Your task to perform on an android device: clear history in the chrome app Image 0: 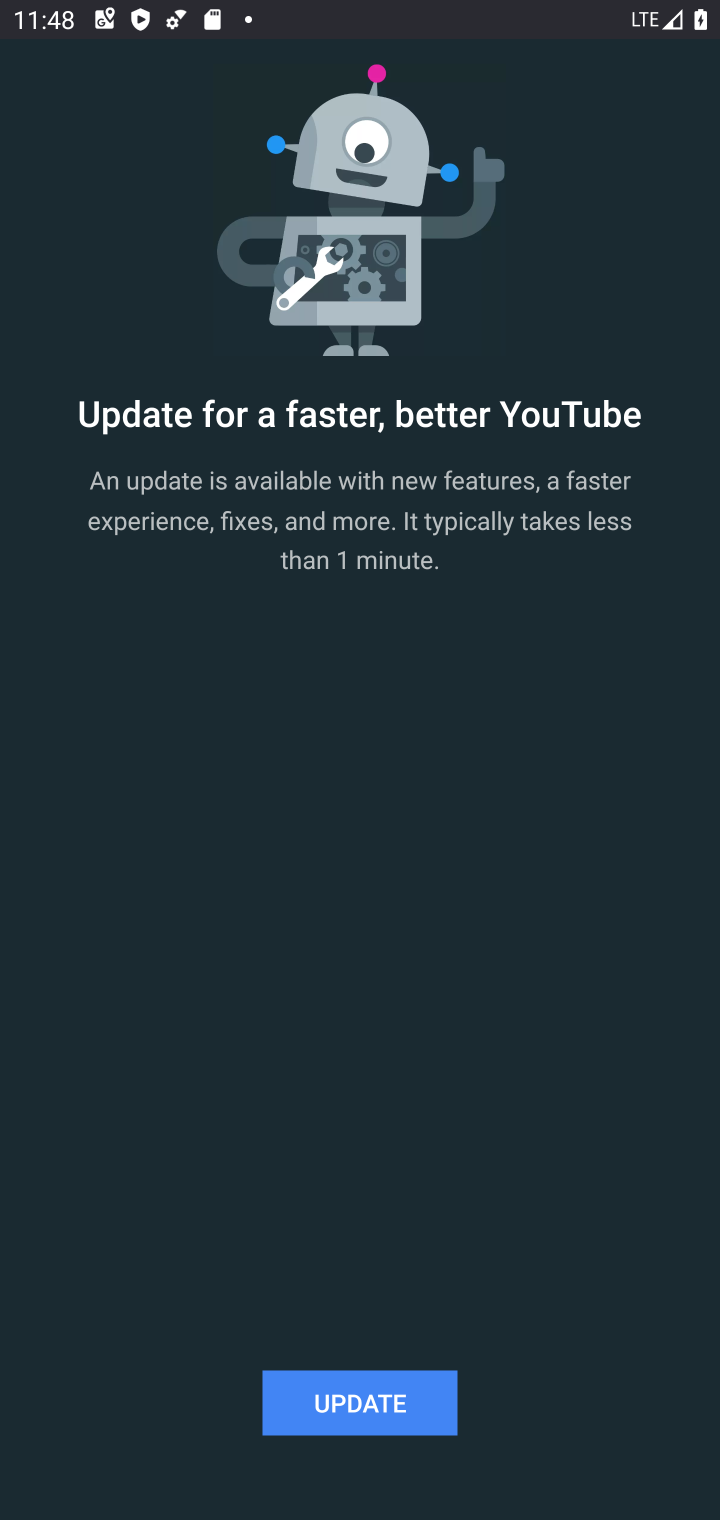
Step 0: press back button
Your task to perform on an android device: clear history in the chrome app Image 1: 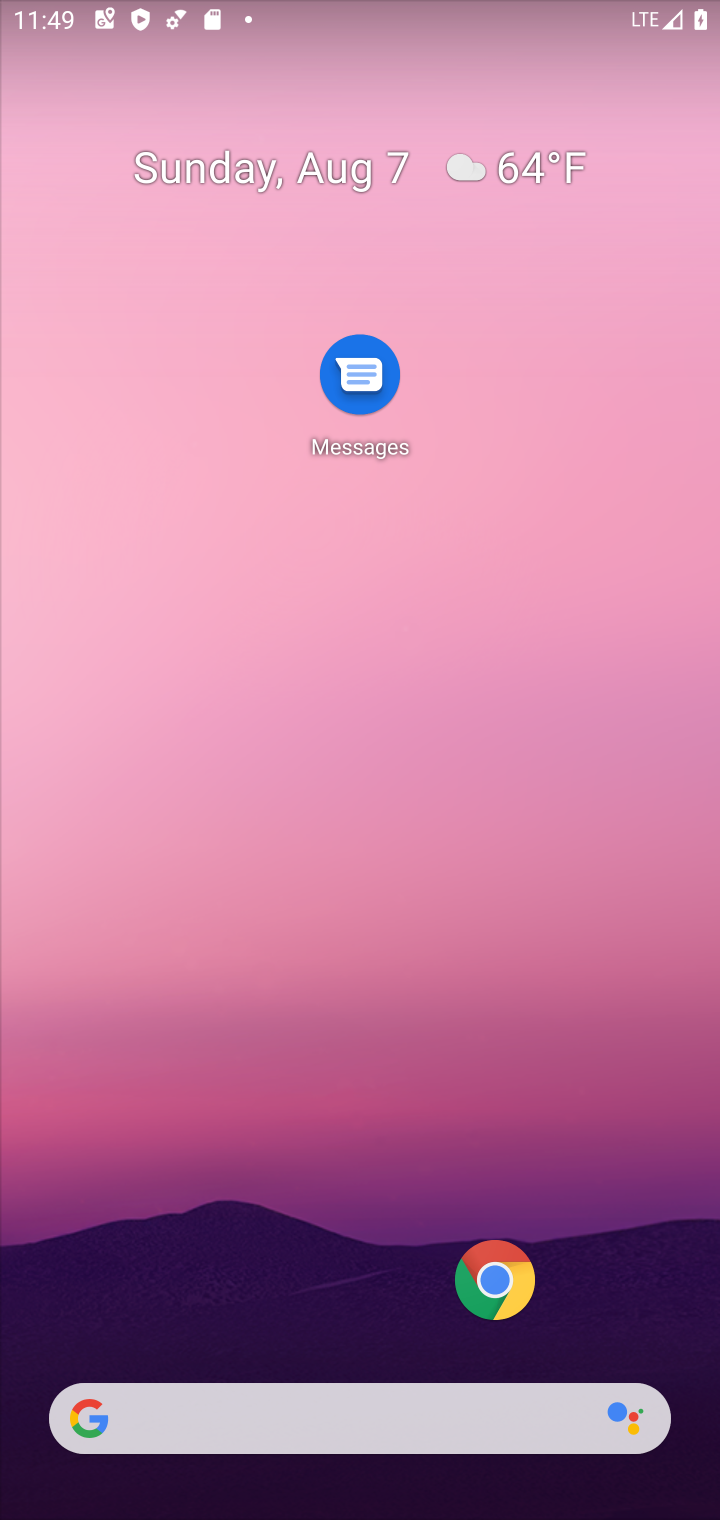
Step 1: click (520, 1277)
Your task to perform on an android device: clear history in the chrome app Image 2: 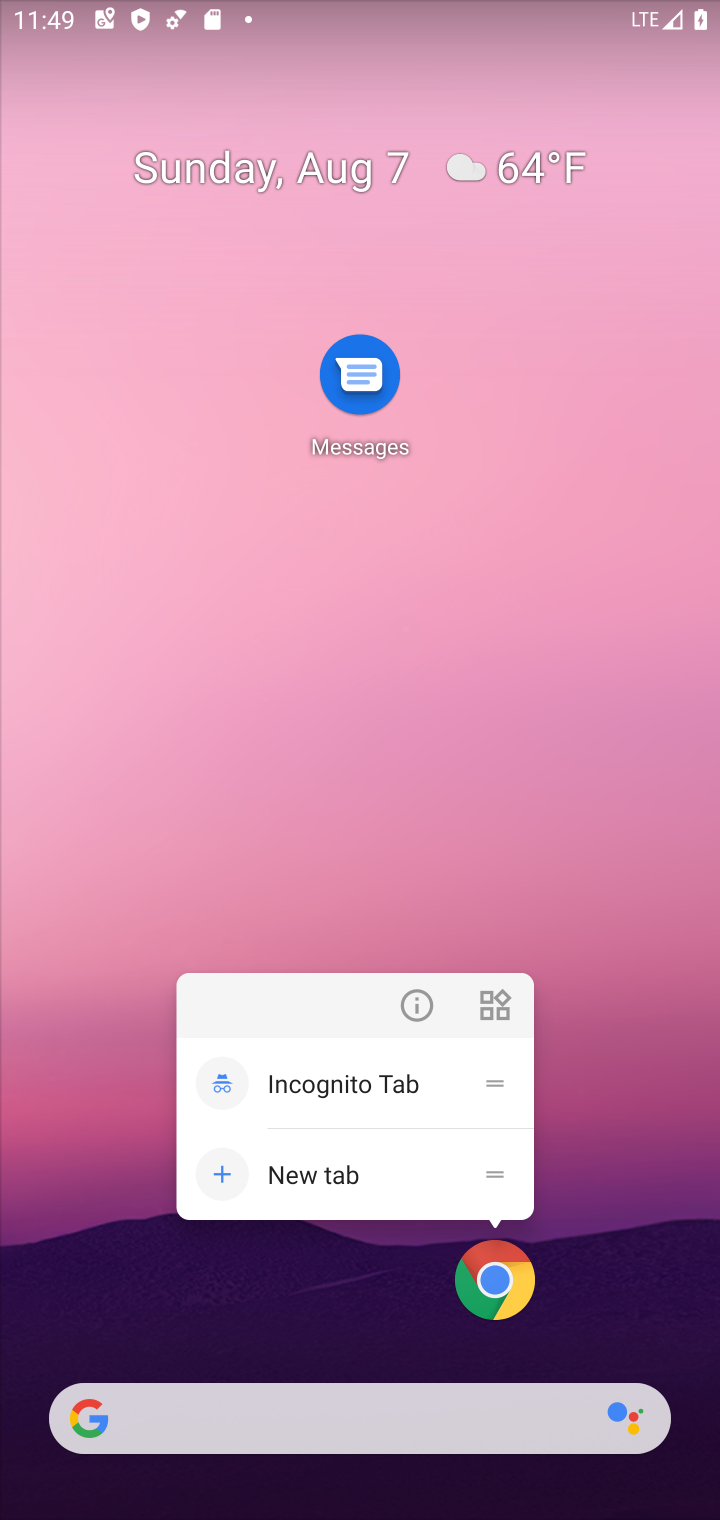
Step 2: click (489, 1275)
Your task to perform on an android device: clear history in the chrome app Image 3: 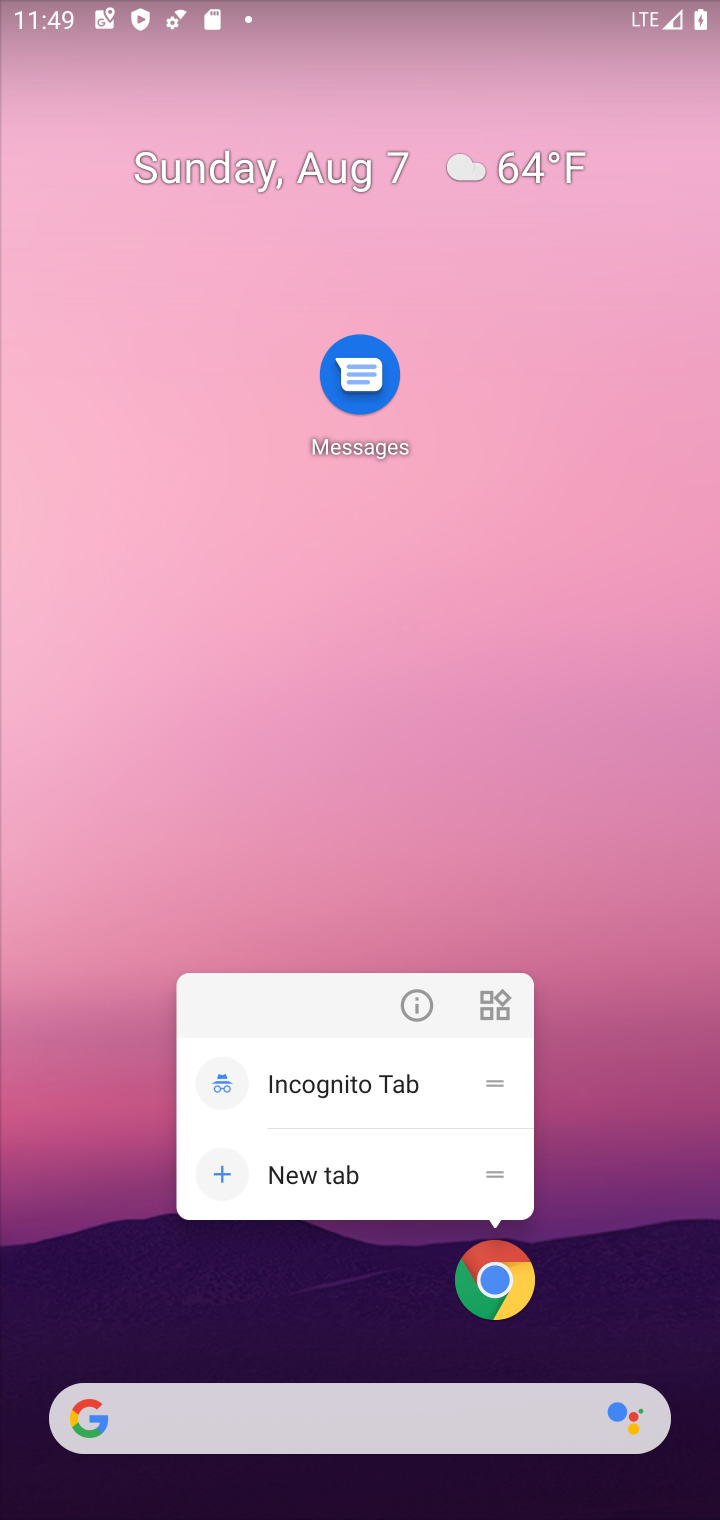
Step 3: click (489, 1275)
Your task to perform on an android device: clear history in the chrome app Image 4: 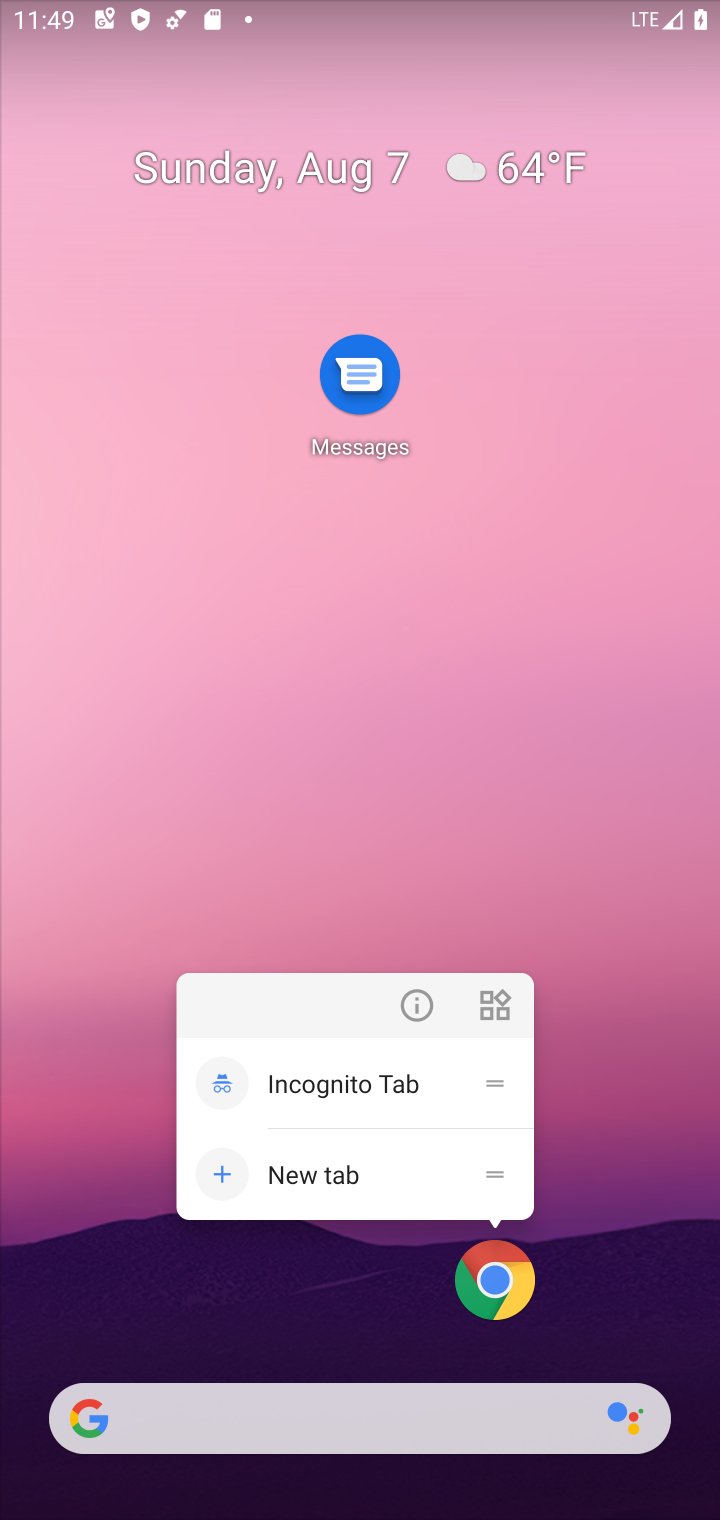
Step 4: click (482, 1286)
Your task to perform on an android device: clear history in the chrome app Image 5: 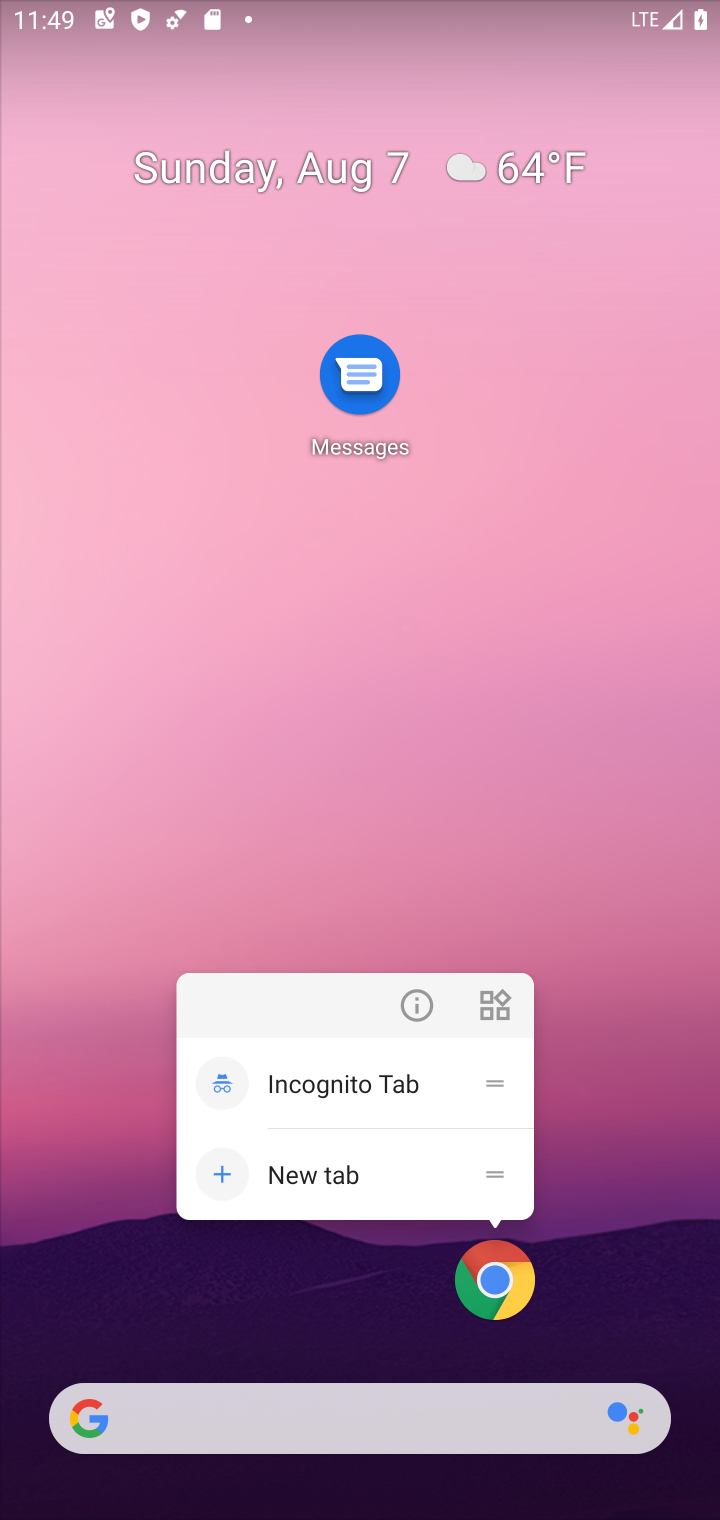
Step 5: click (507, 1289)
Your task to perform on an android device: clear history in the chrome app Image 6: 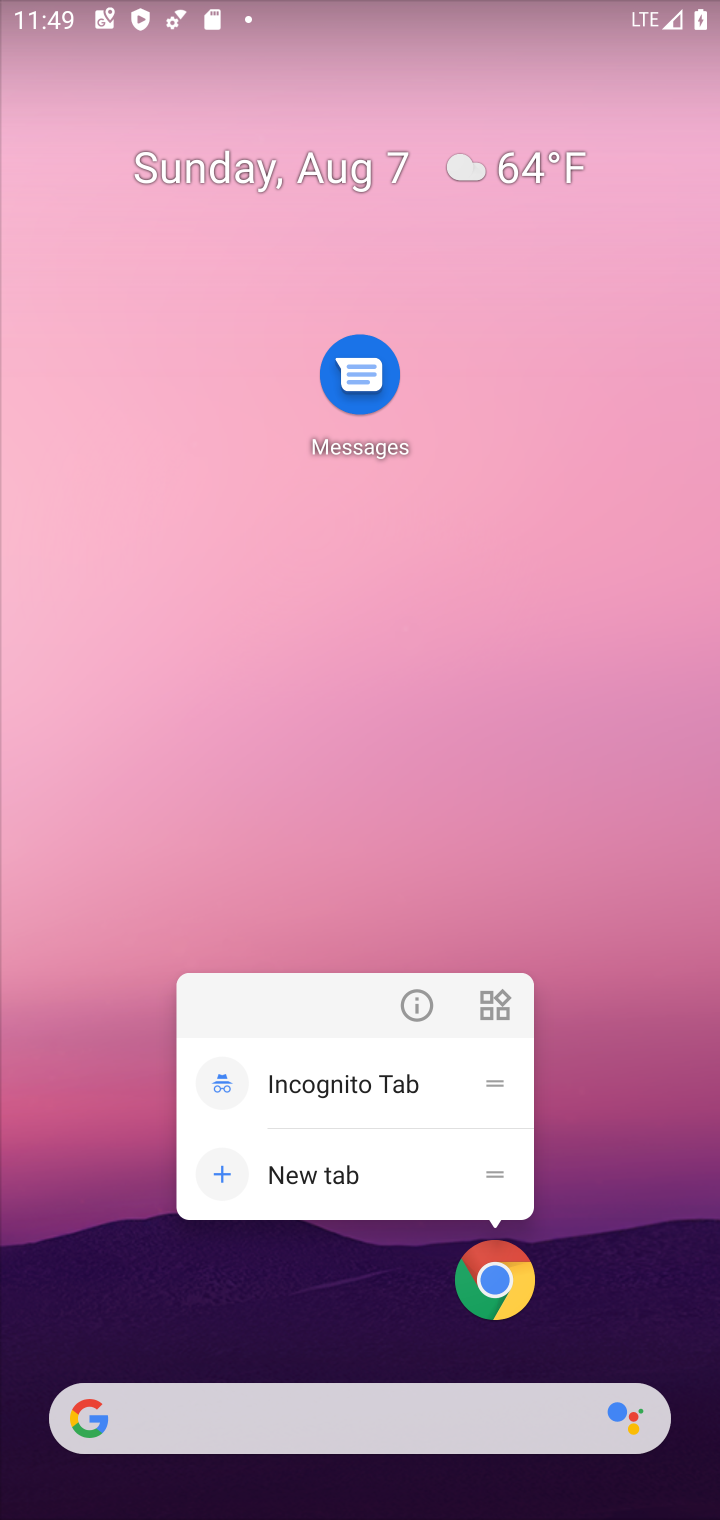
Step 6: click (507, 1289)
Your task to perform on an android device: clear history in the chrome app Image 7: 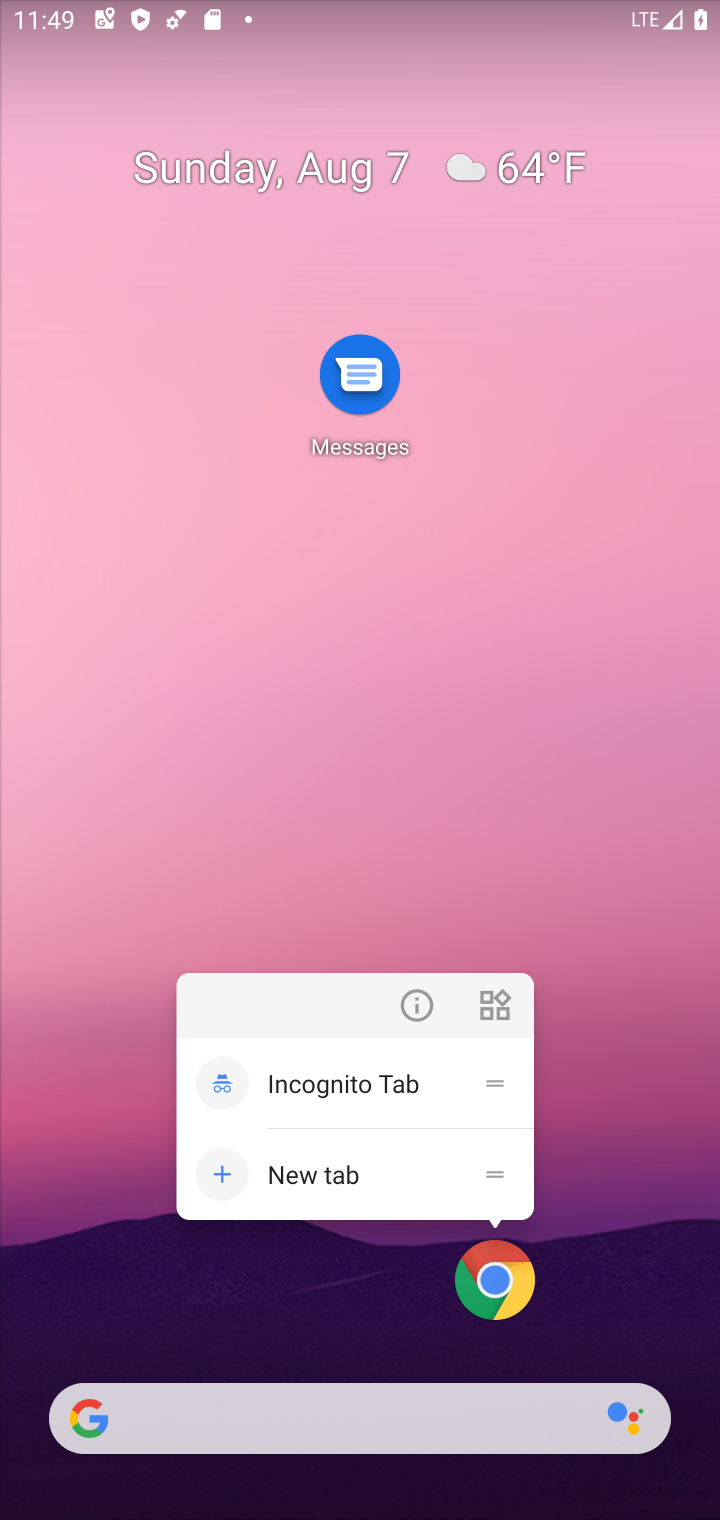
Step 7: click (509, 1287)
Your task to perform on an android device: clear history in the chrome app Image 8: 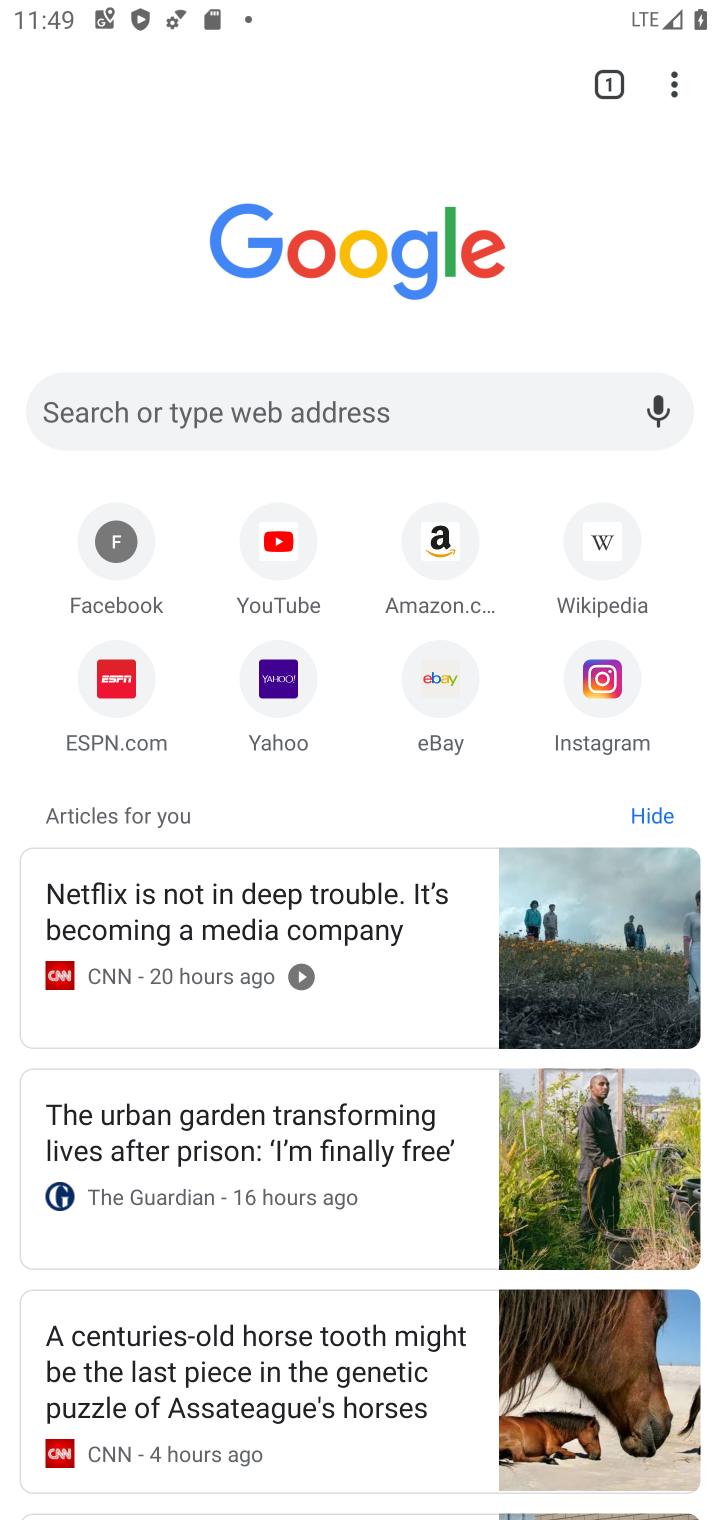
Step 8: drag from (676, 79) to (394, 480)
Your task to perform on an android device: clear history in the chrome app Image 9: 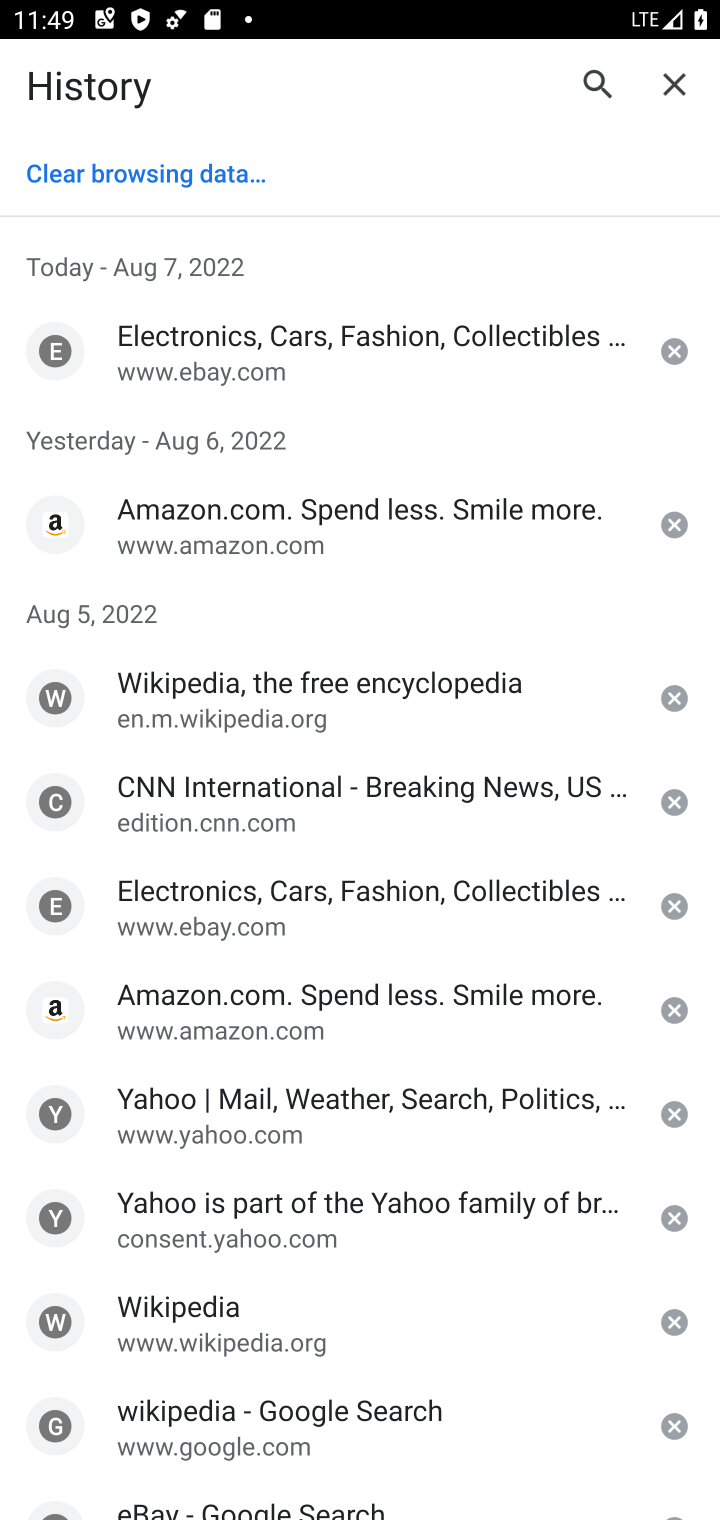
Step 9: click (81, 203)
Your task to perform on an android device: clear history in the chrome app Image 10: 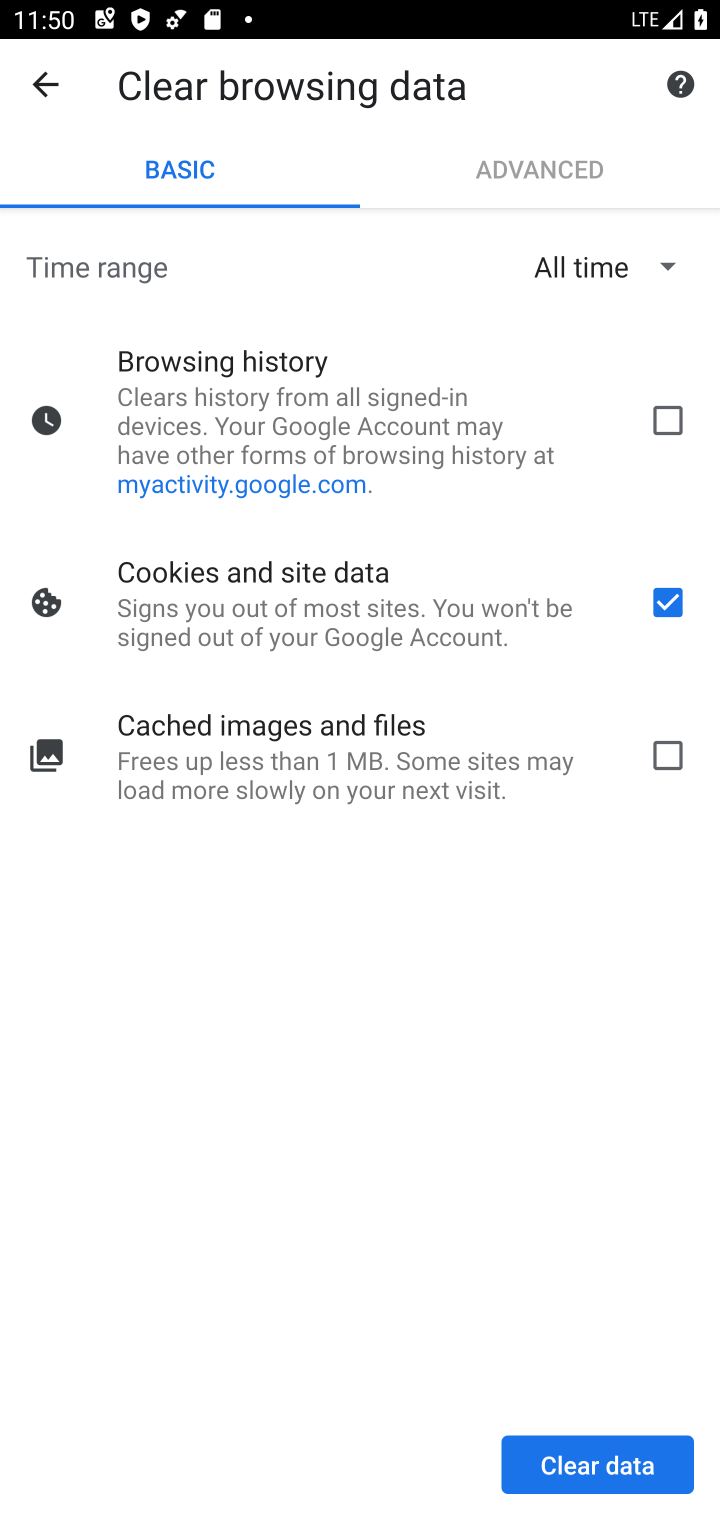
Step 10: click (677, 413)
Your task to perform on an android device: clear history in the chrome app Image 11: 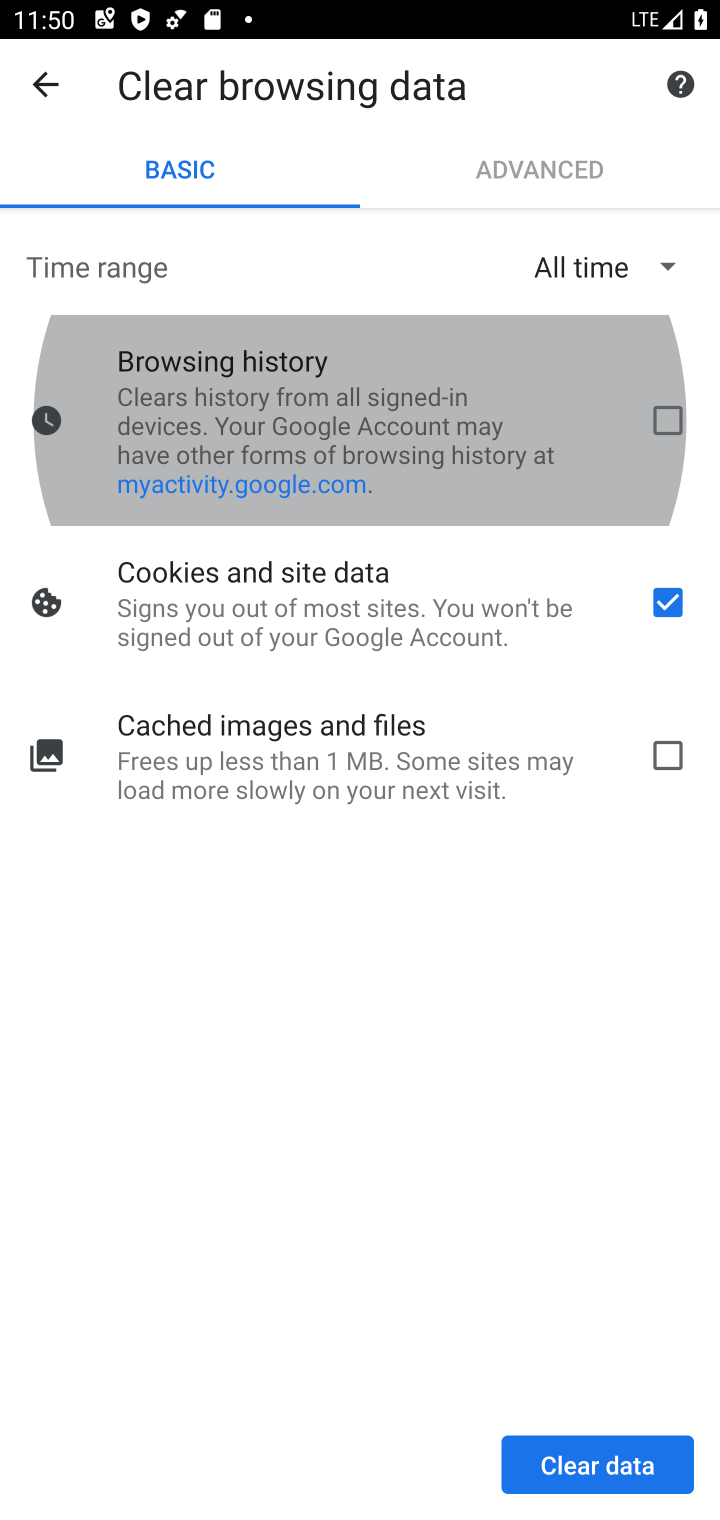
Step 11: click (659, 750)
Your task to perform on an android device: clear history in the chrome app Image 12: 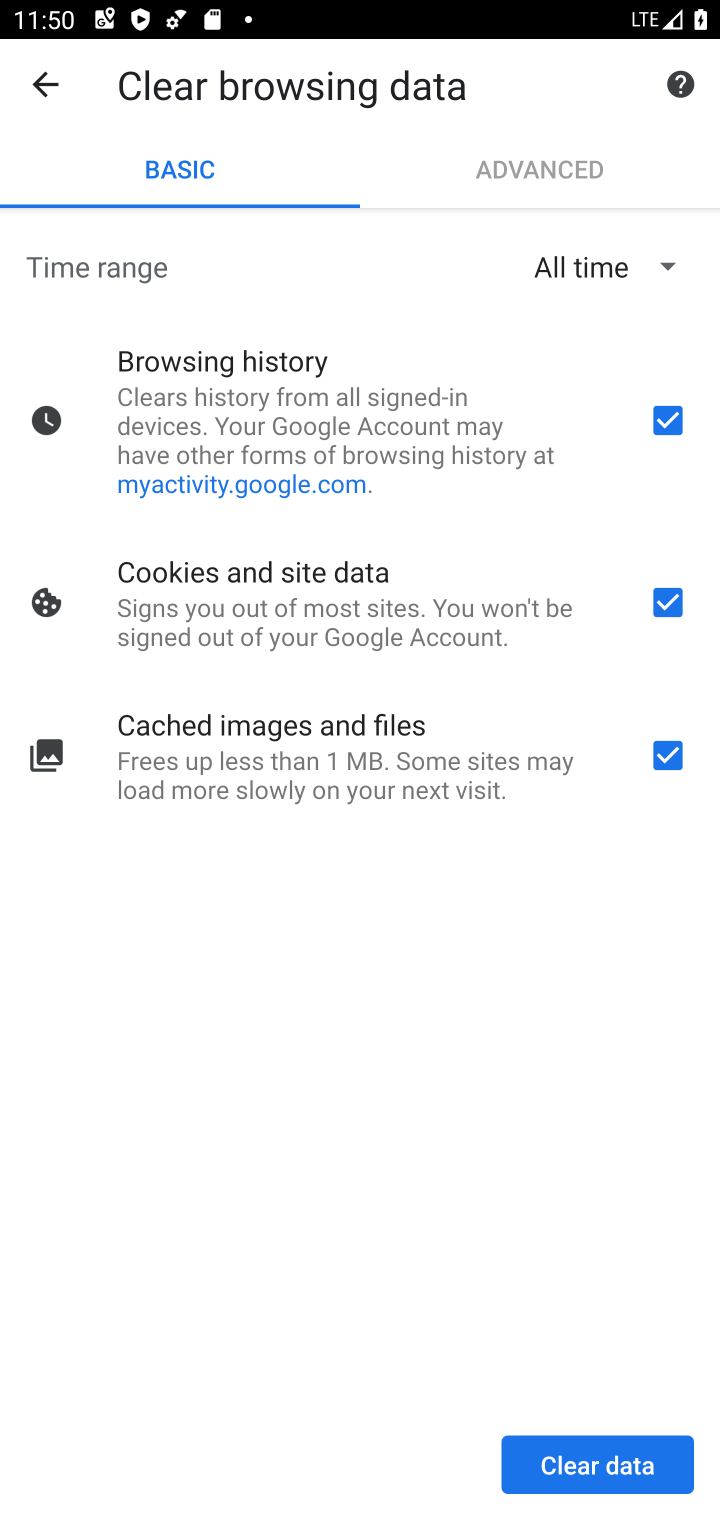
Step 12: click (572, 1470)
Your task to perform on an android device: clear history in the chrome app Image 13: 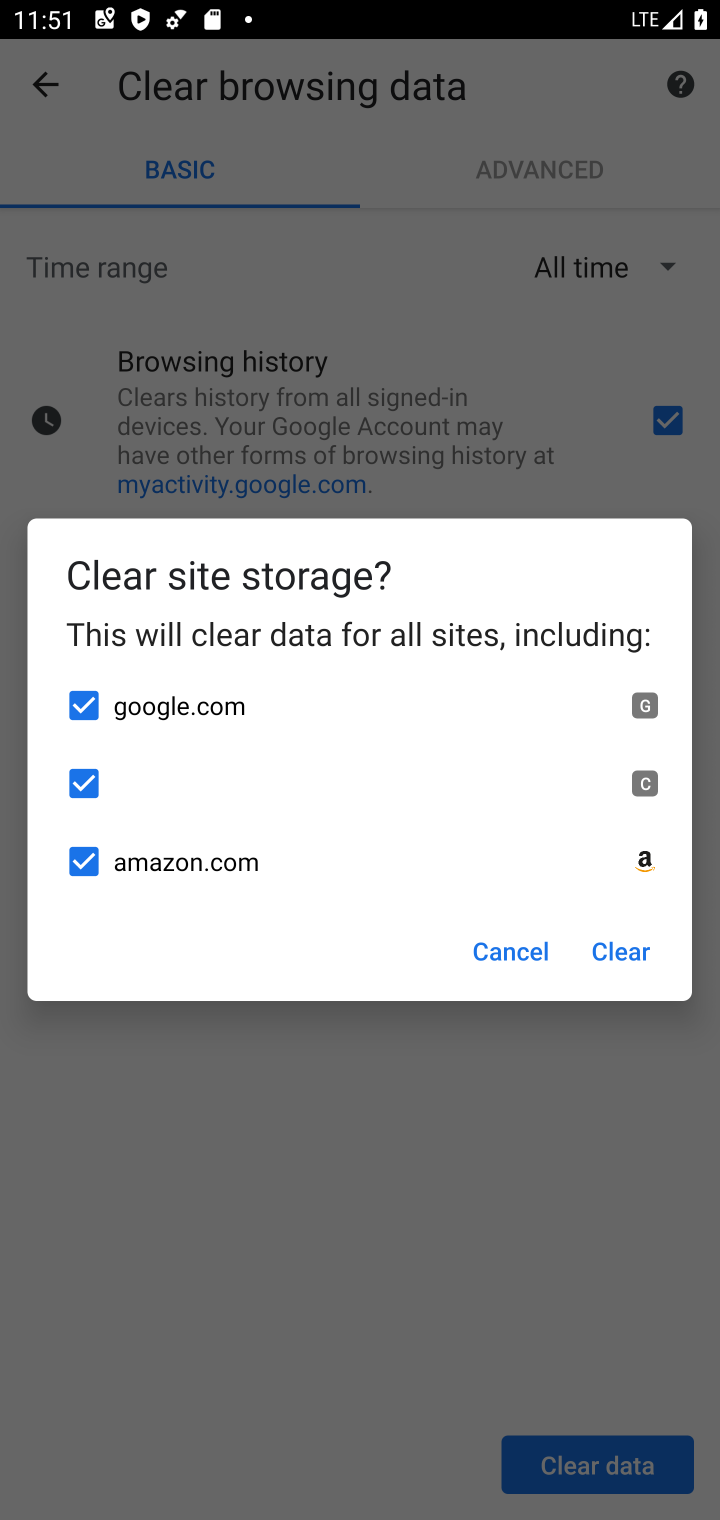
Step 13: click (630, 954)
Your task to perform on an android device: clear history in the chrome app Image 14: 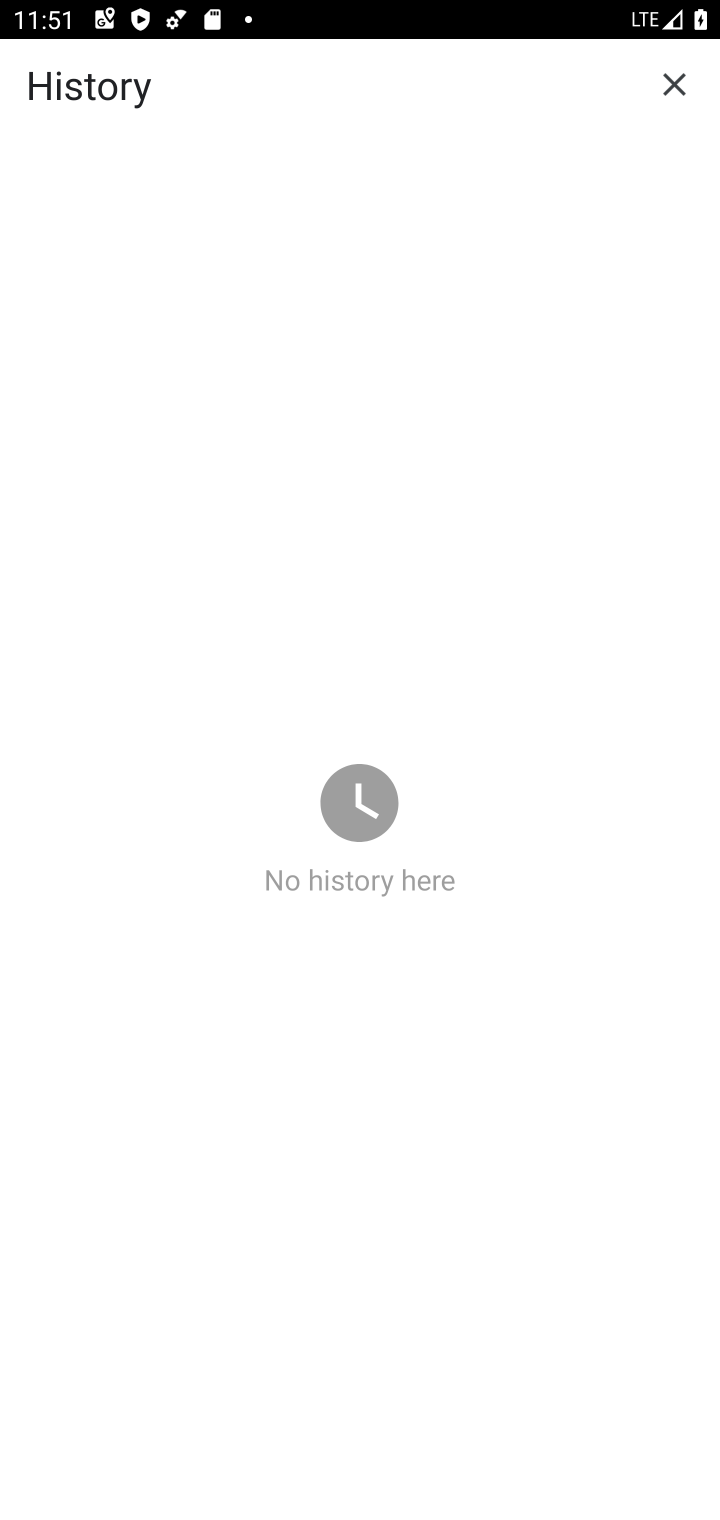
Step 14: task complete